Your task to perform on an android device: turn on translation in the chrome app Image 0: 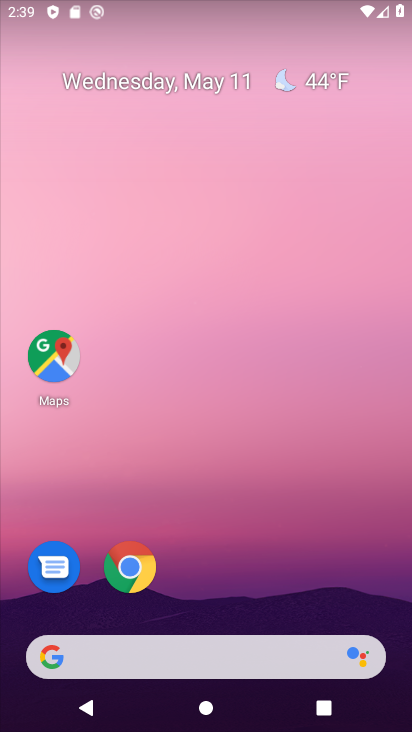
Step 0: drag from (256, 579) to (224, 24)
Your task to perform on an android device: turn on translation in the chrome app Image 1: 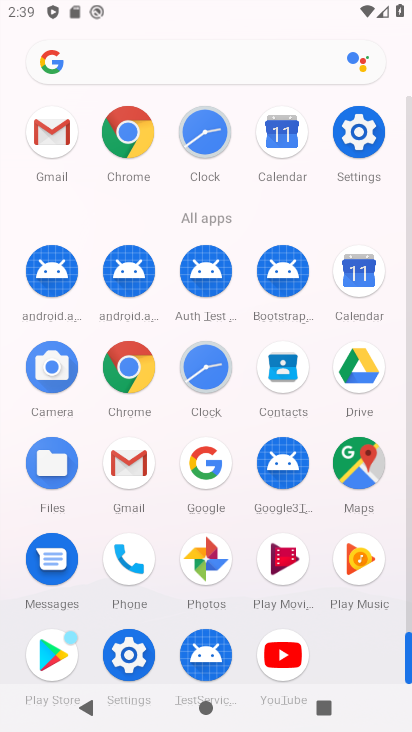
Step 1: drag from (8, 587) to (15, 236)
Your task to perform on an android device: turn on translation in the chrome app Image 2: 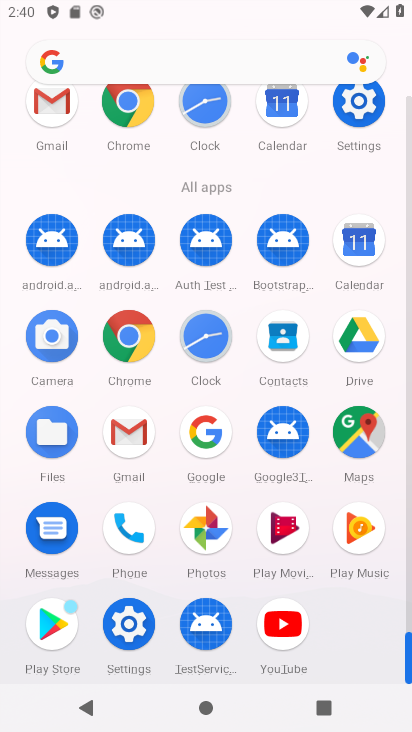
Step 2: click (124, 333)
Your task to perform on an android device: turn on translation in the chrome app Image 3: 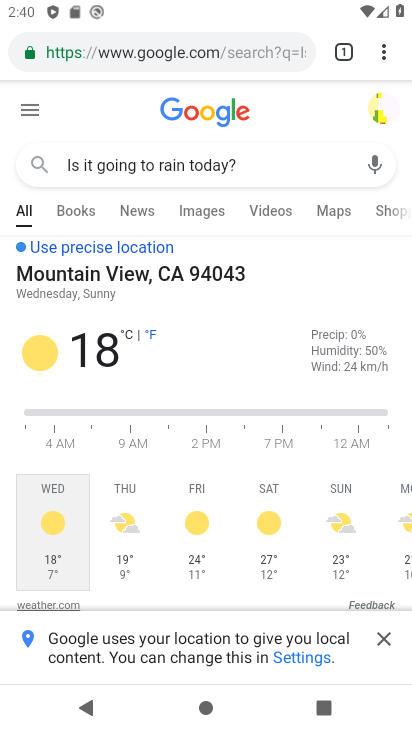
Step 3: drag from (382, 48) to (236, 589)
Your task to perform on an android device: turn on translation in the chrome app Image 4: 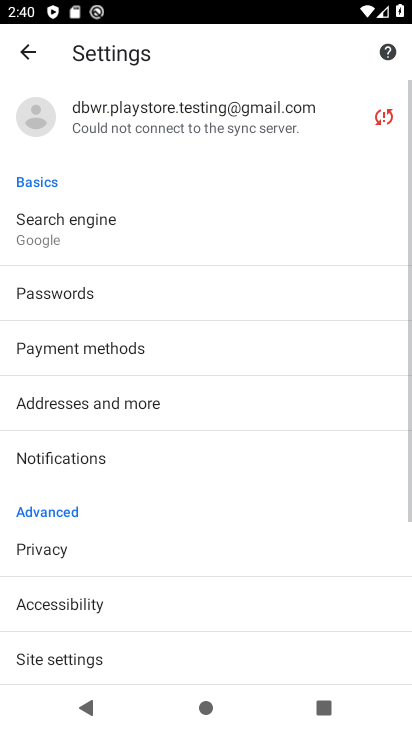
Step 4: drag from (153, 631) to (219, 221)
Your task to perform on an android device: turn on translation in the chrome app Image 5: 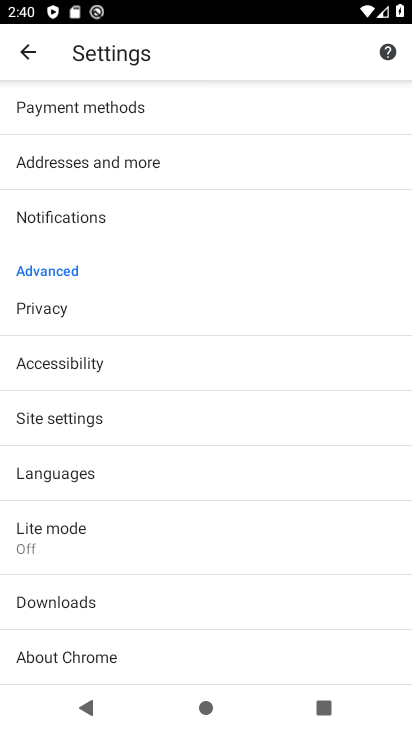
Step 5: click (133, 463)
Your task to perform on an android device: turn on translation in the chrome app Image 6: 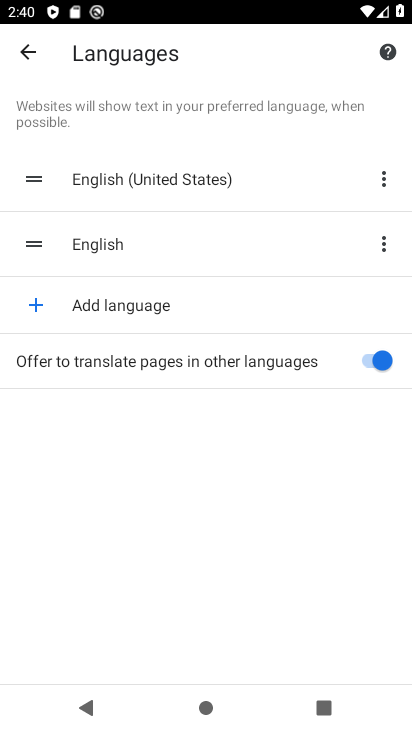
Step 6: task complete